Your task to perform on an android device: turn on sleep mode Image 0: 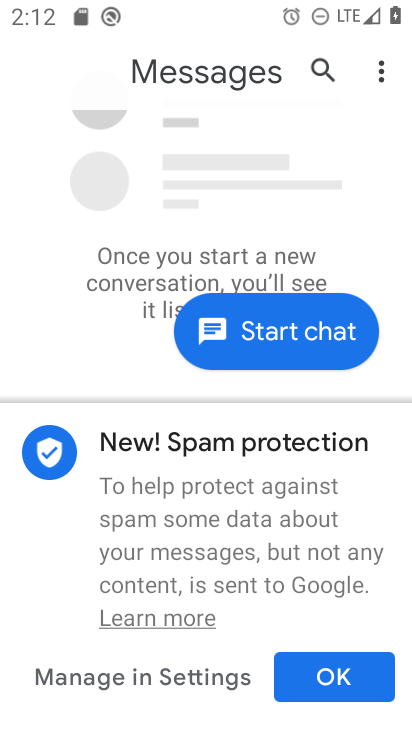
Step 0: click (381, 416)
Your task to perform on an android device: turn on sleep mode Image 1: 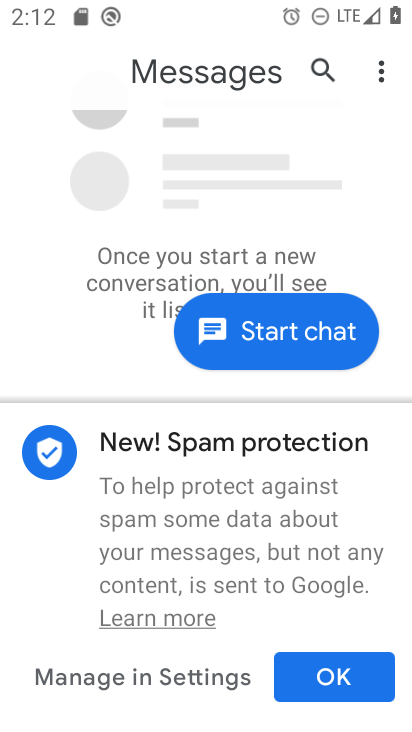
Step 1: press home button
Your task to perform on an android device: turn on sleep mode Image 2: 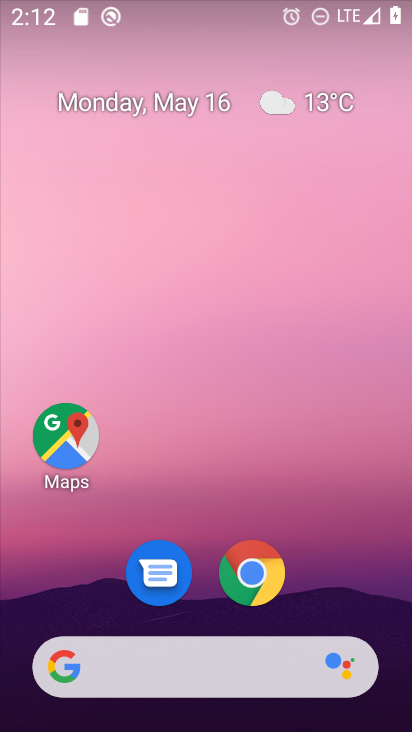
Step 2: drag from (248, 669) to (273, 171)
Your task to perform on an android device: turn on sleep mode Image 3: 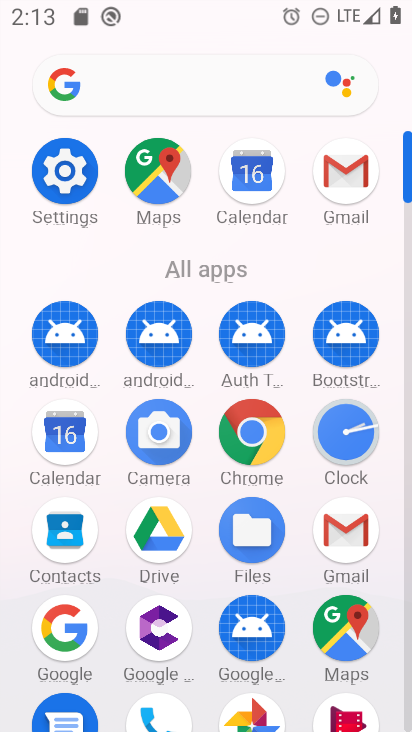
Step 3: click (58, 200)
Your task to perform on an android device: turn on sleep mode Image 4: 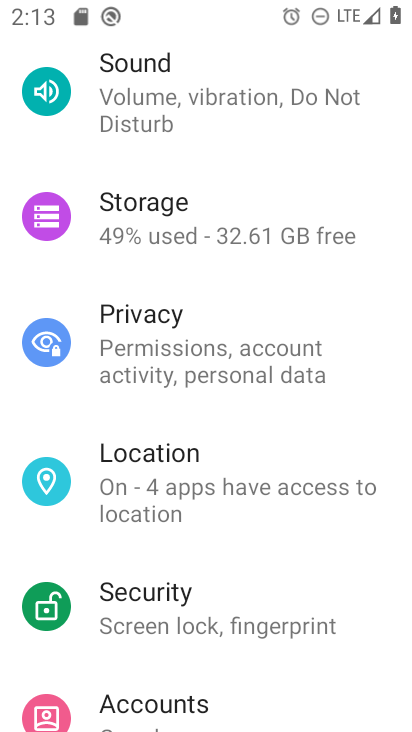
Step 4: drag from (154, 236) to (127, 494)
Your task to perform on an android device: turn on sleep mode Image 5: 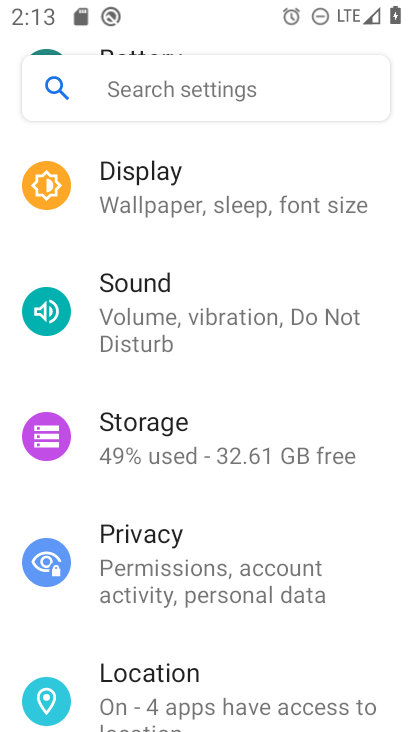
Step 5: click (156, 211)
Your task to perform on an android device: turn on sleep mode Image 6: 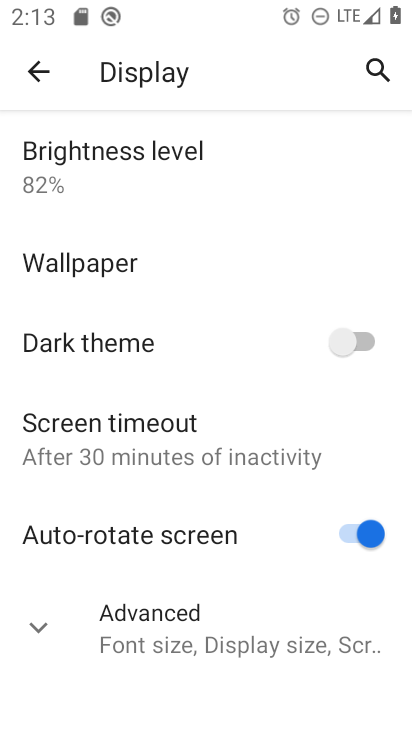
Step 6: click (222, 644)
Your task to perform on an android device: turn on sleep mode Image 7: 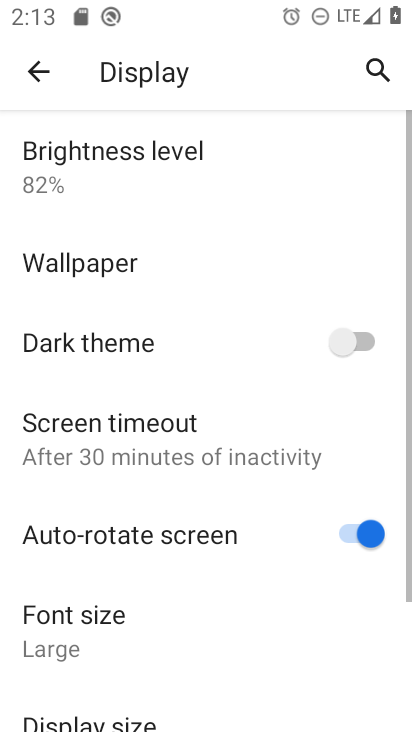
Step 7: task complete